Your task to perform on an android device: open app "Flipkart Online Shopping App" (install if not already installed) and go to login screen Image 0: 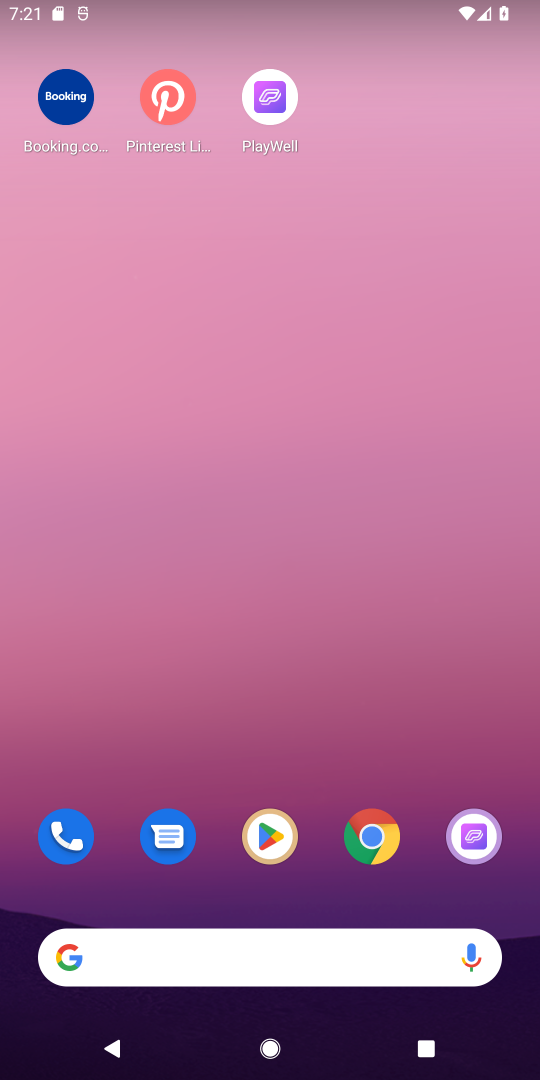
Step 0: press home button
Your task to perform on an android device: open app "Flipkart Online Shopping App" (install if not already installed) and go to login screen Image 1: 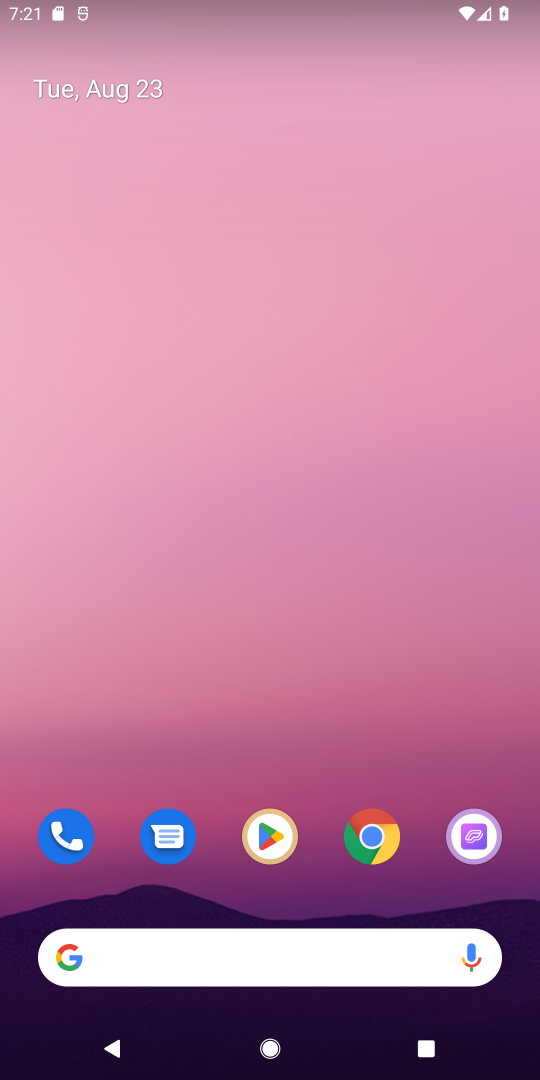
Step 1: click (265, 838)
Your task to perform on an android device: open app "Flipkart Online Shopping App" (install if not already installed) and go to login screen Image 2: 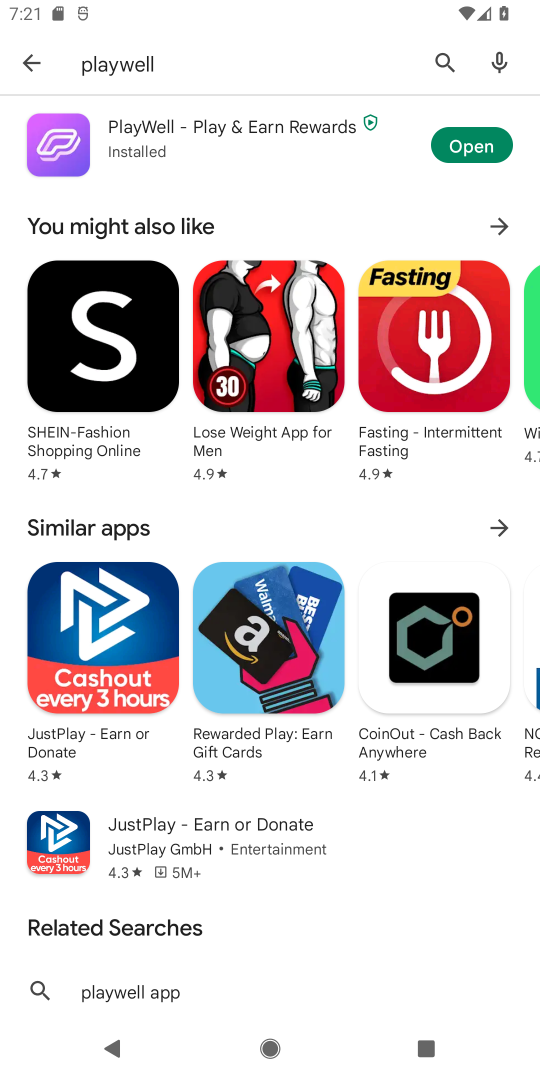
Step 2: click (435, 62)
Your task to perform on an android device: open app "Flipkart Online Shopping App" (install if not already installed) and go to login screen Image 3: 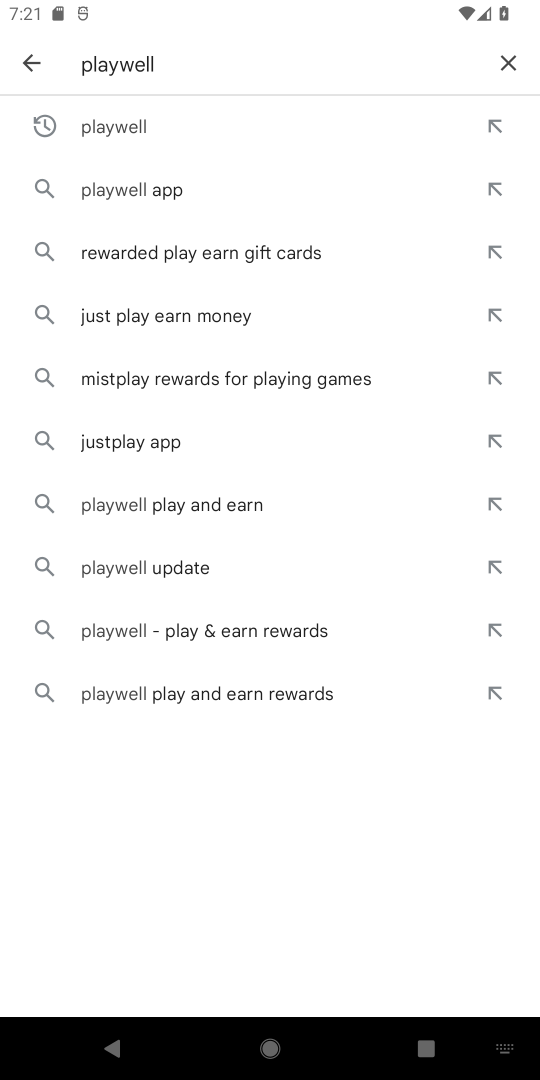
Step 3: click (497, 62)
Your task to perform on an android device: open app "Flipkart Online Shopping App" (install if not already installed) and go to login screen Image 4: 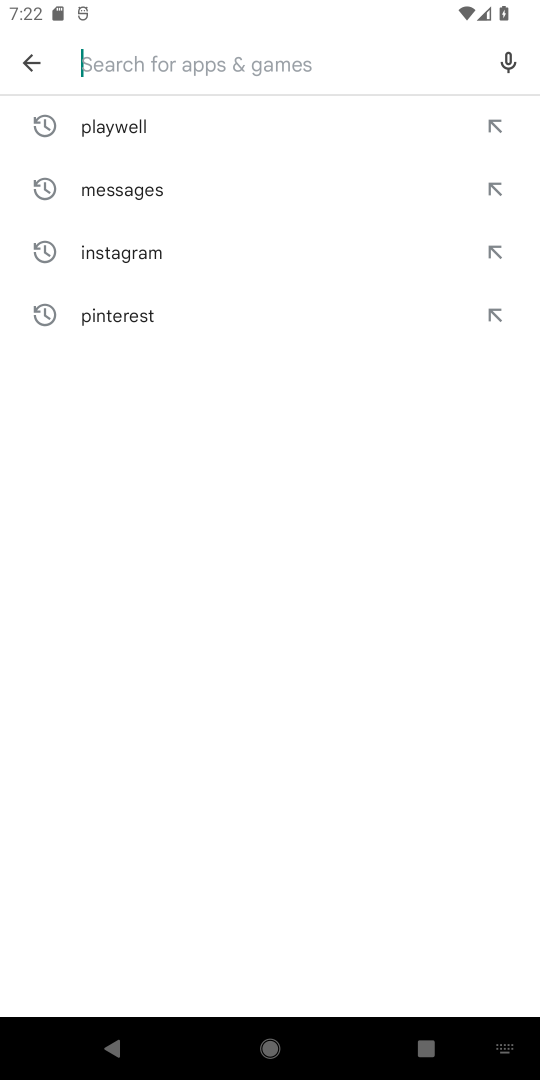
Step 4: type "Flipkart Online Shopping App"
Your task to perform on an android device: open app "Flipkart Online Shopping App" (install if not already installed) and go to login screen Image 5: 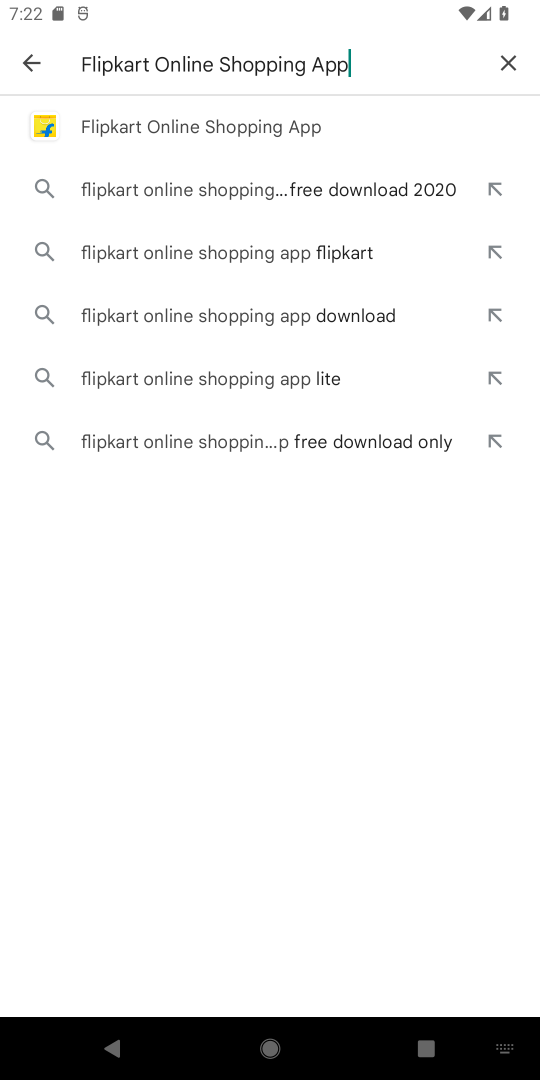
Step 5: click (292, 130)
Your task to perform on an android device: open app "Flipkart Online Shopping App" (install if not already installed) and go to login screen Image 6: 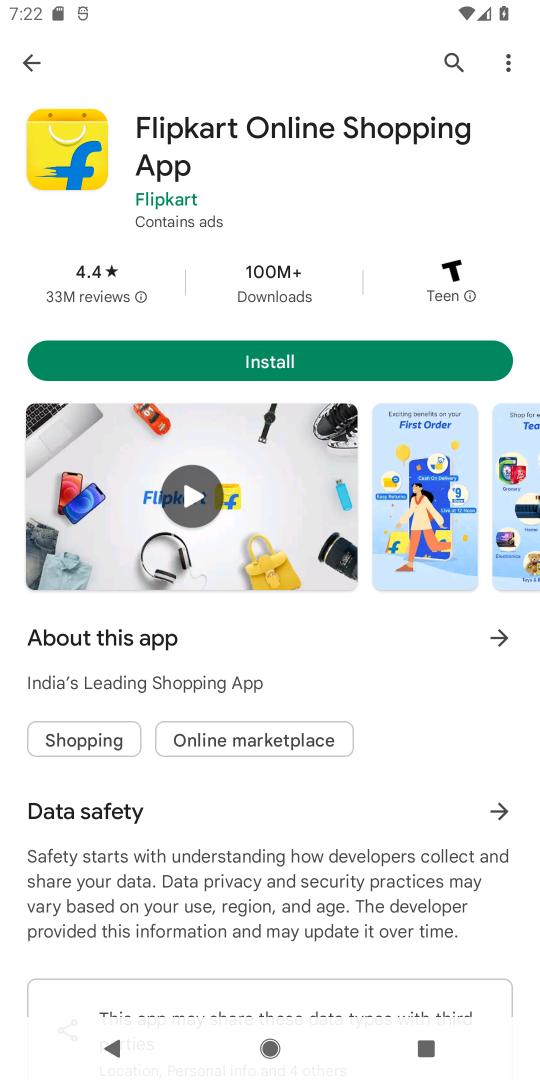
Step 6: click (272, 367)
Your task to perform on an android device: open app "Flipkart Online Shopping App" (install if not already installed) and go to login screen Image 7: 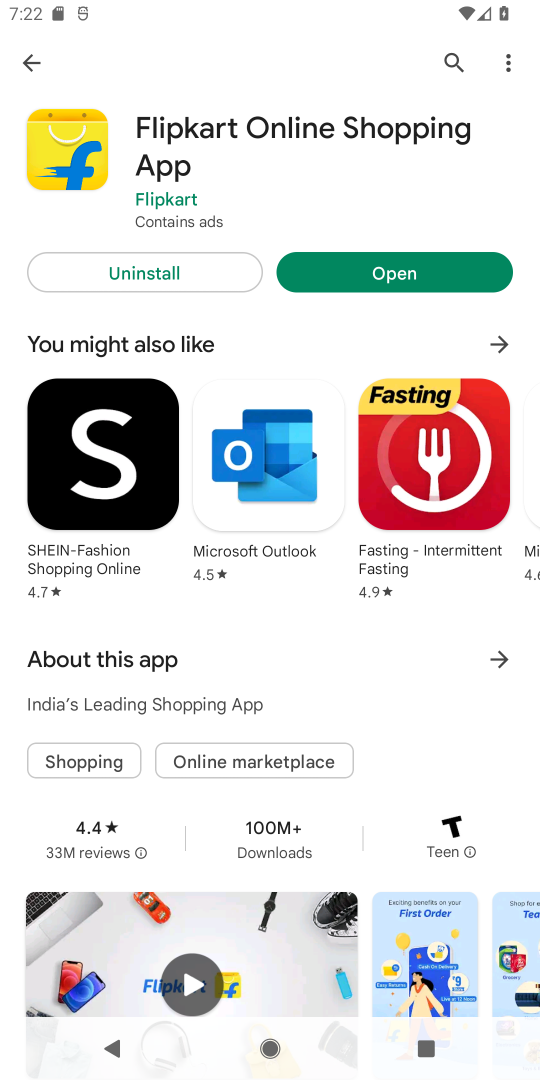
Step 7: click (405, 274)
Your task to perform on an android device: open app "Flipkart Online Shopping App" (install if not already installed) and go to login screen Image 8: 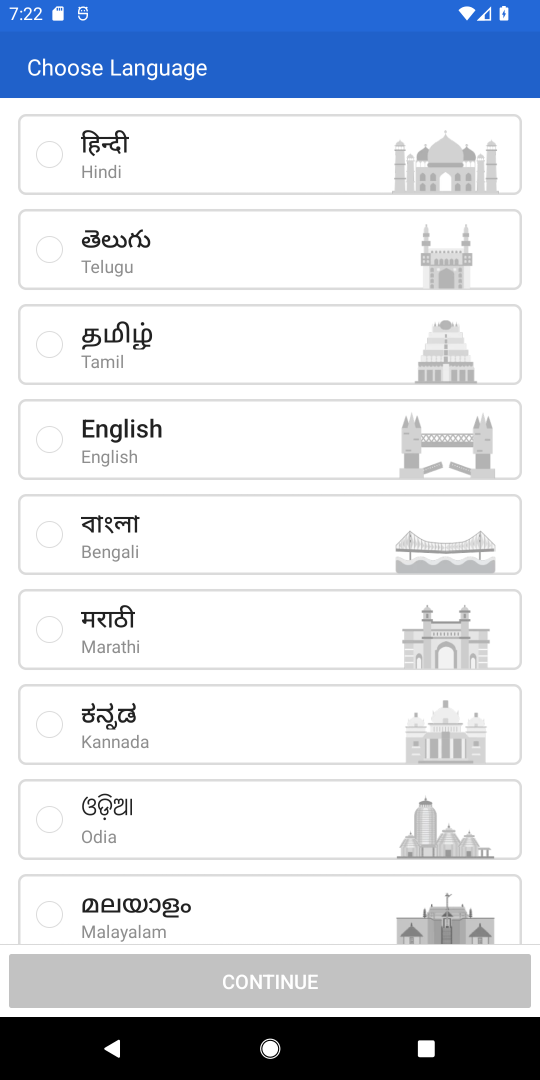
Step 8: click (53, 439)
Your task to perform on an android device: open app "Flipkart Online Shopping App" (install if not already installed) and go to login screen Image 9: 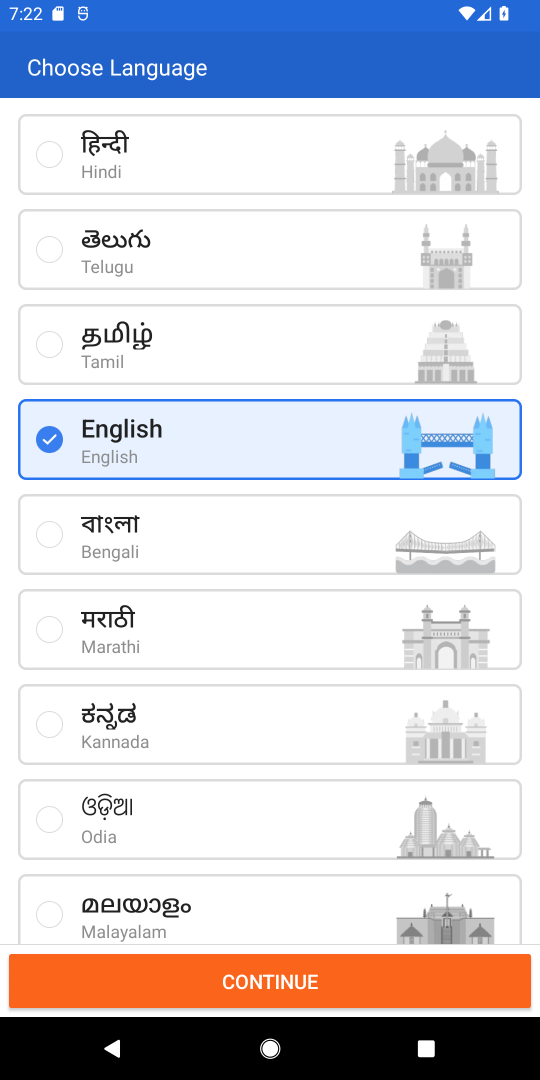
Step 9: click (325, 982)
Your task to perform on an android device: open app "Flipkart Online Shopping App" (install if not already installed) and go to login screen Image 10: 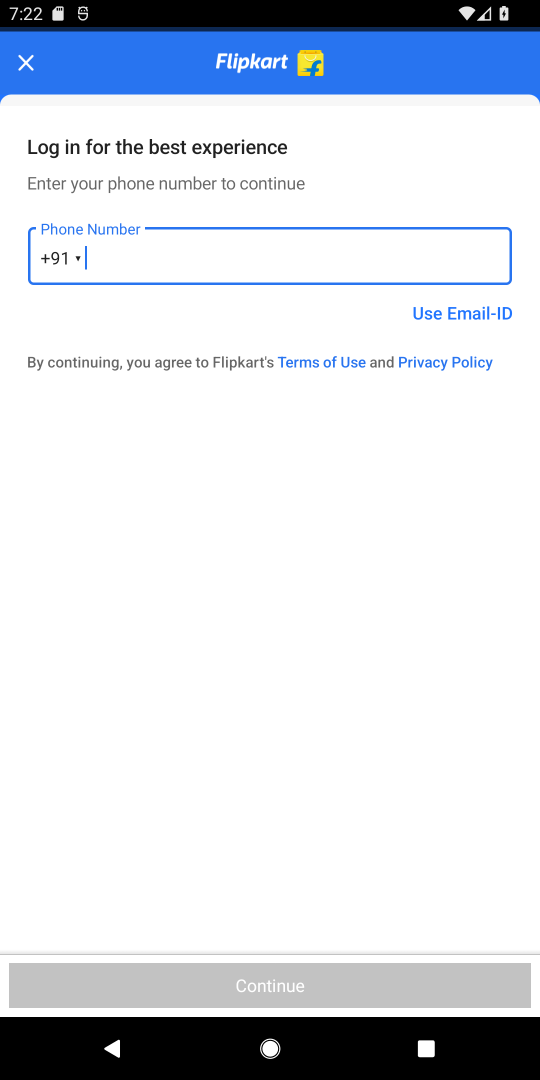
Step 10: task complete